Your task to perform on an android device: change alarm snooze length Image 0: 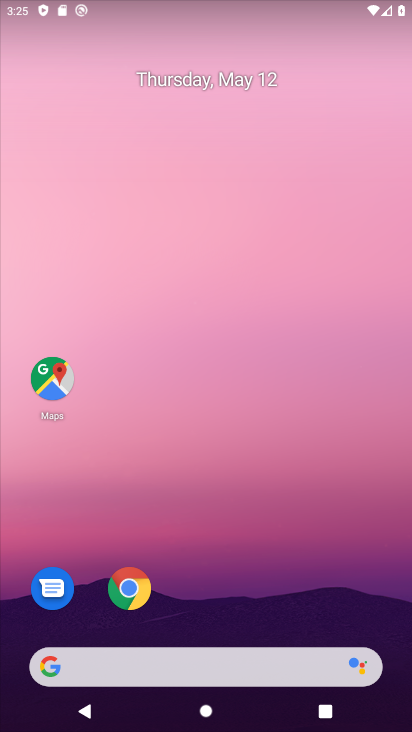
Step 0: drag from (309, 576) to (297, 6)
Your task to perform on an android device: change alarm snooze length Image 1: 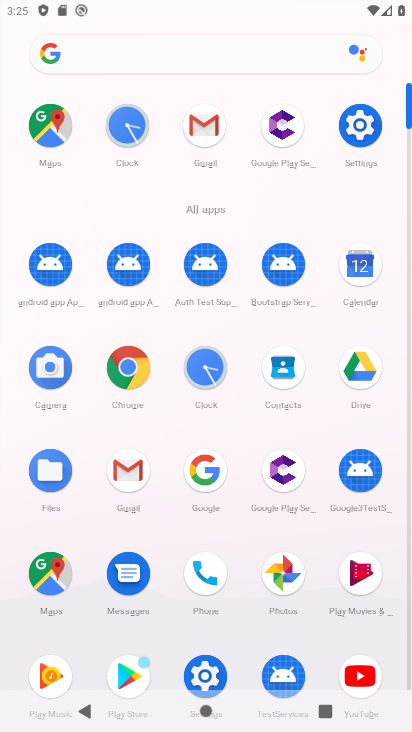
Step 1: click (220, 382)
Your task to perform on an android device: change alarm snooze length Image 2: 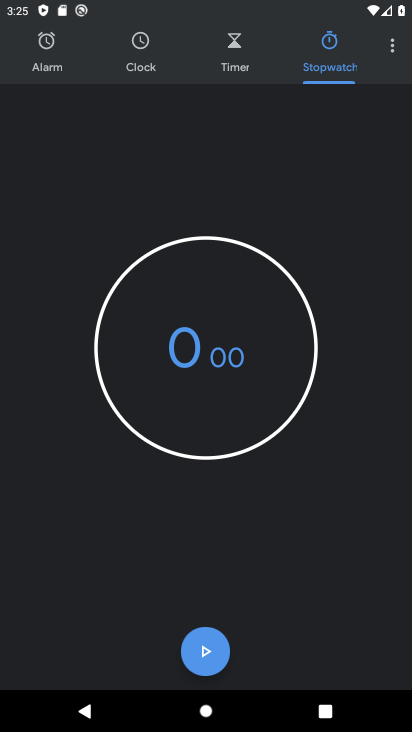
Step 2: click (390, 42)
Your task to perform on an android device: change alarm snooze length Image 3: 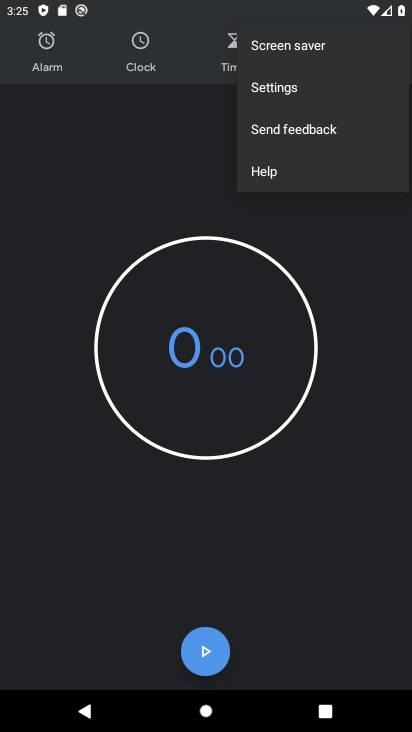
Step 3: click (294, 90)
Your task to perform on an android device: change alarm snooze length Image 4: 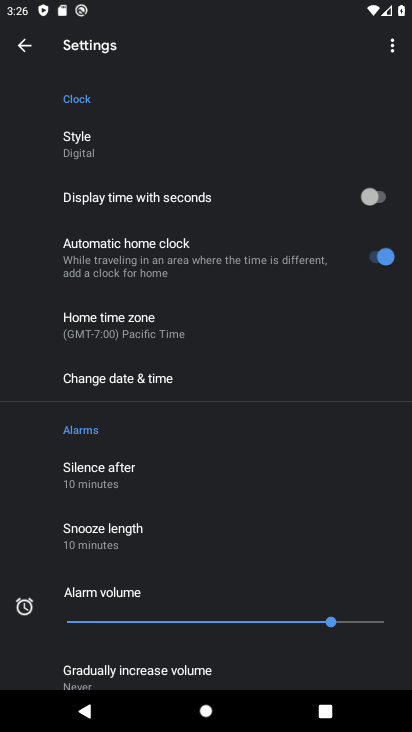
Step 4: click (190, 533)
Your task to perform on an android device: change alarm snooze length Image 5: 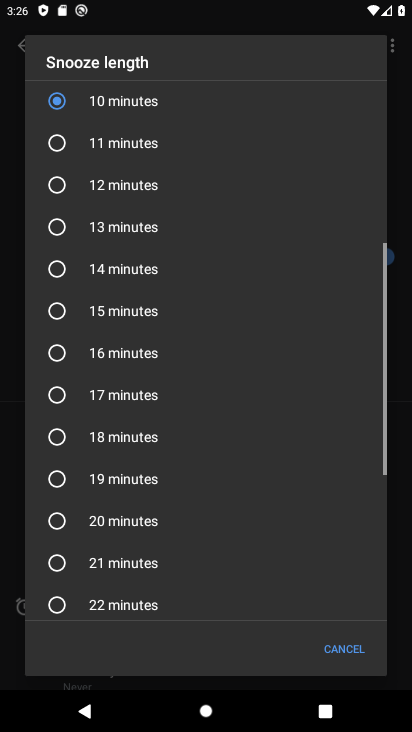
Step 5: click (145, 498)
Your task to perform on an android device: change alarm snooze length Image 6: 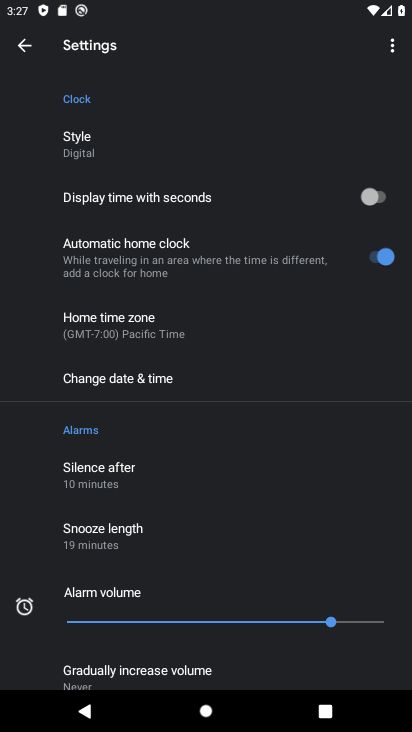
Step 6: task complete